Your task to perform on an android device: open a bookmark in the chrome app Image 0: 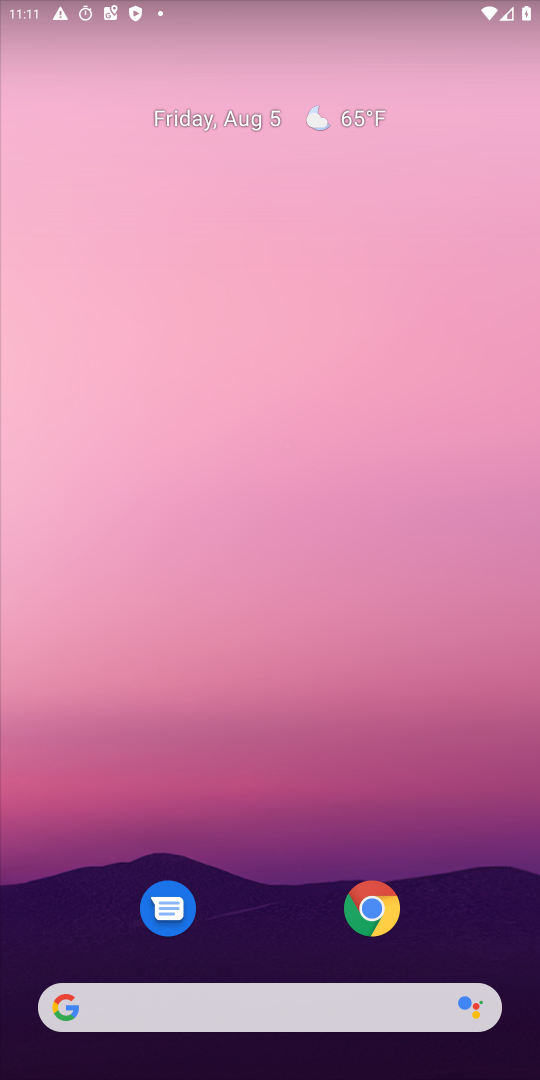
Step 0: click (385, 931)
Your task to perform on an android device: open a bookmark in the chrome app Image 1: 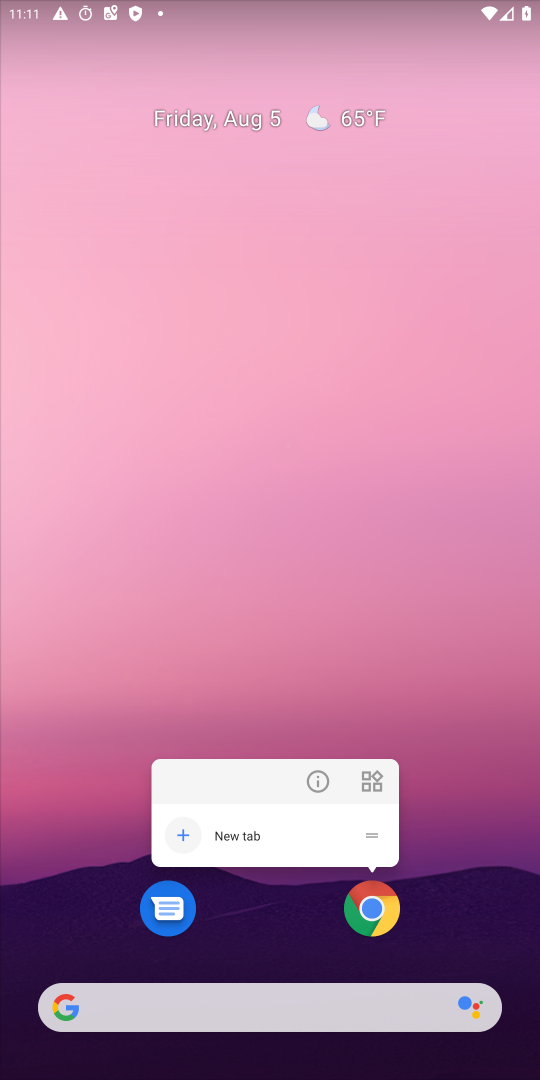
Step 1: click (387, 905)
Your task to perform on an android device: open a bookmark in the chrome app Image 2: 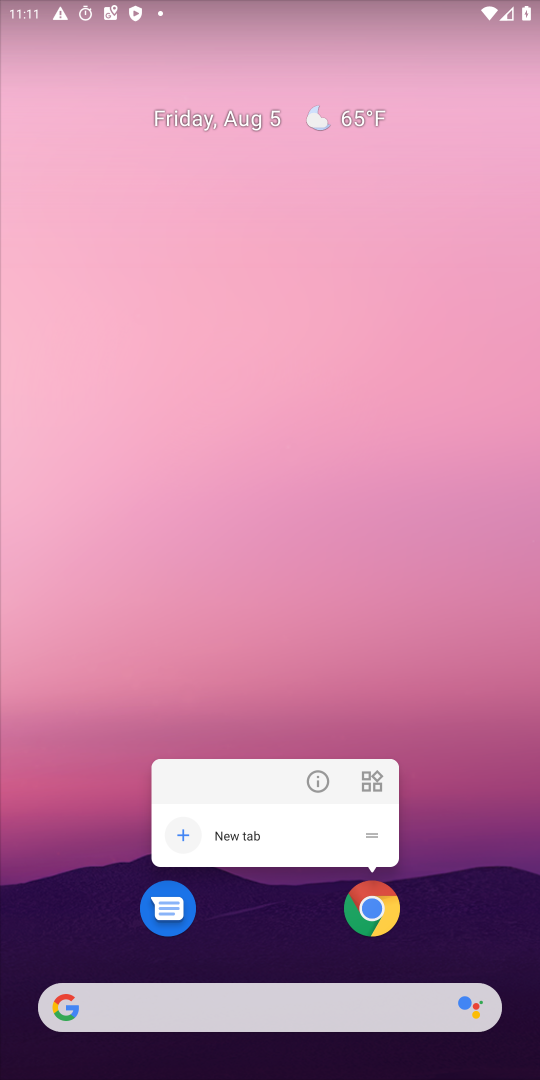
Step 2: click (387, 905)
Your task to perform on an android device: open a bookmark in the chrome app Image 3: 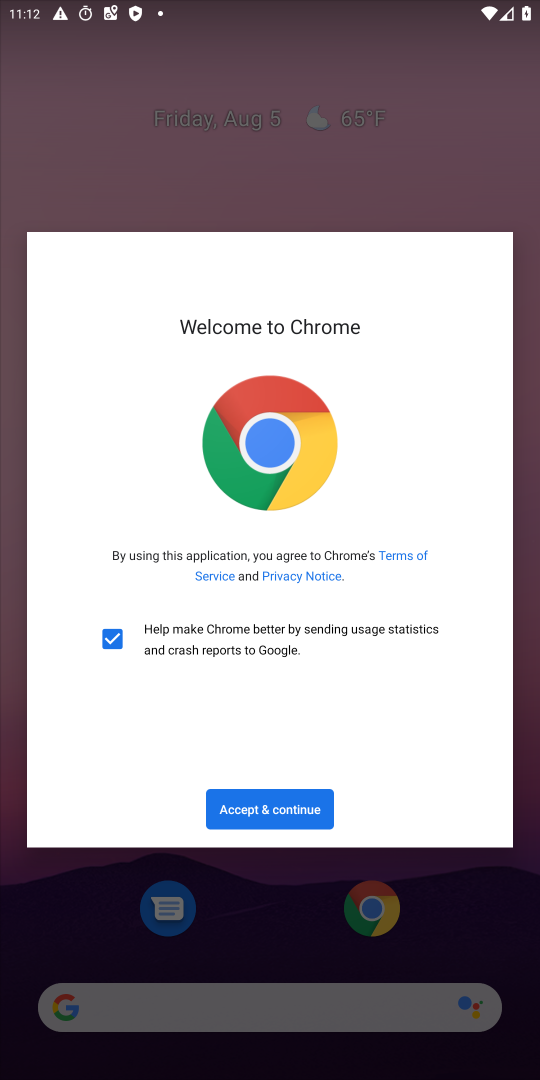
Step 3: click (265, 815)
Your task to perform on an android device: open a bookmark in the chrome app Image 4: 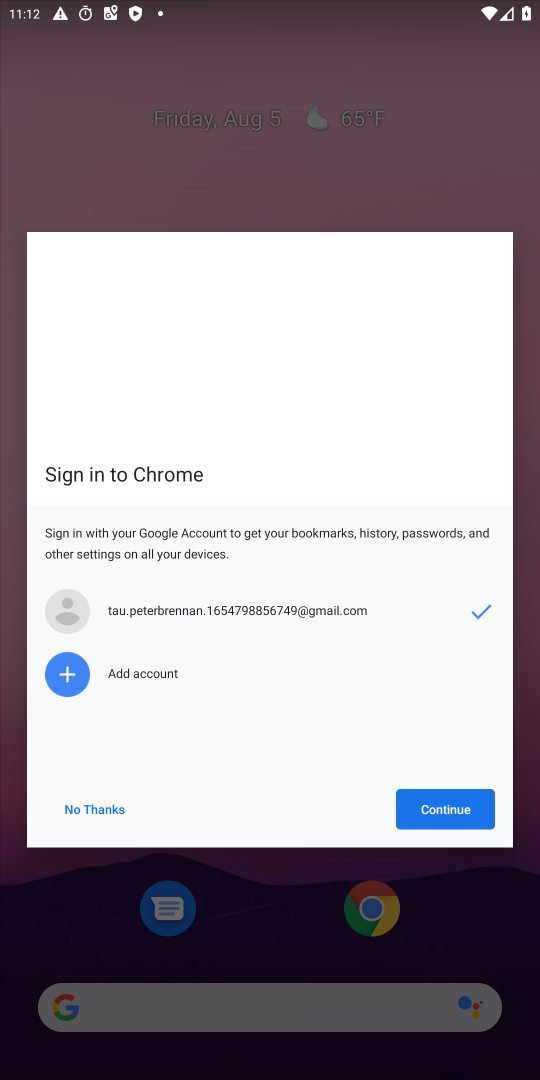
Step 4: click (427, 796)
Your task to perform on an android device: open a bookmark in the chrome app Image 5: 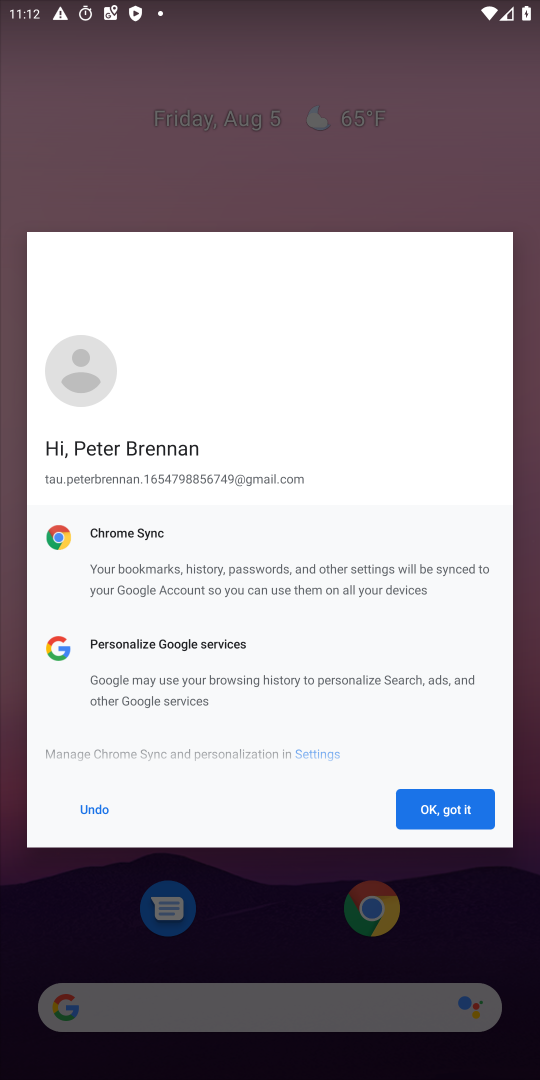
Step 5: click (466, 807)
Your task to perform on an android device: open a bookmark in the chrome app Image 6: 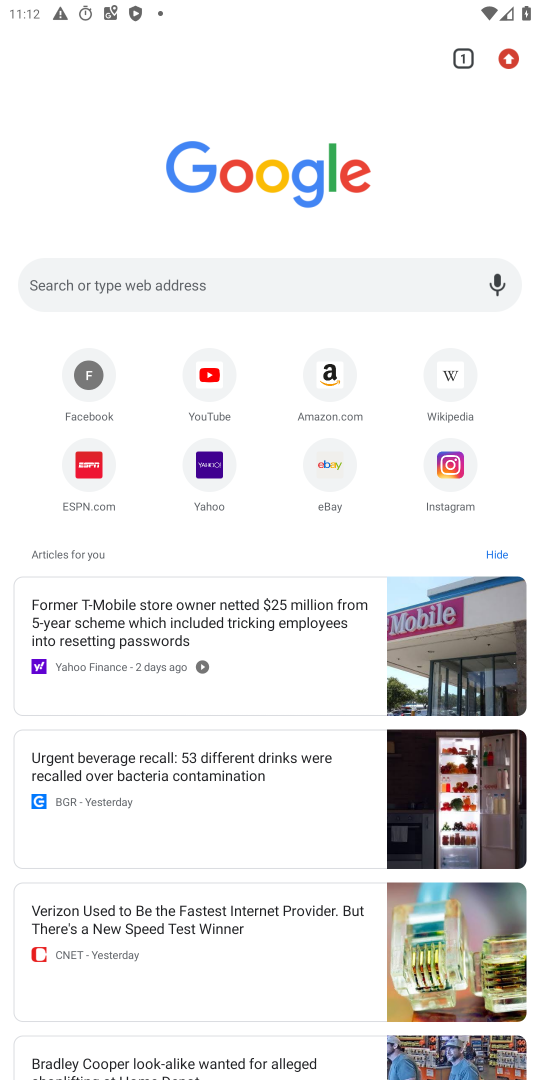
Step 6: click (515, 58)
Your task to perform on an android device: open a bookmark in the chrome app Image 7: 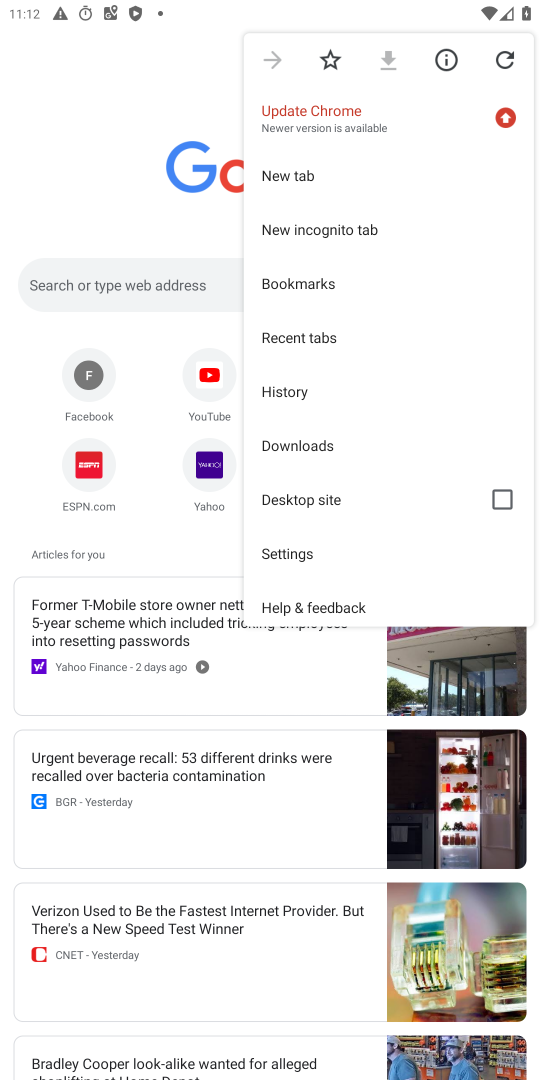
Step 7: click (319, 289)
Your task to perform on an android device: open a bookmark in the chrome app Image 8: 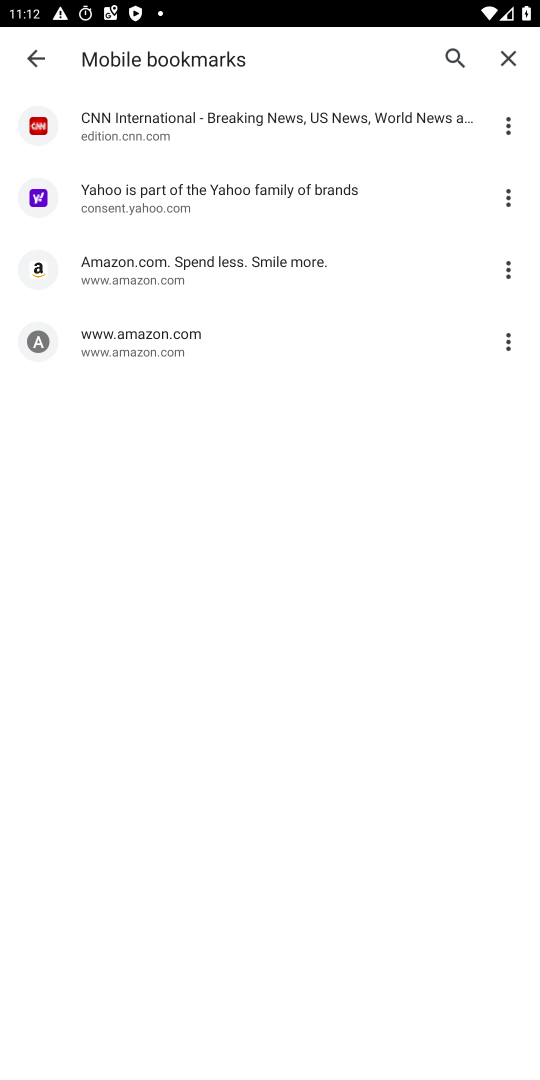
Step 8: task complete